Your task to perform on an android device: What's the weather like in London? Image 0: 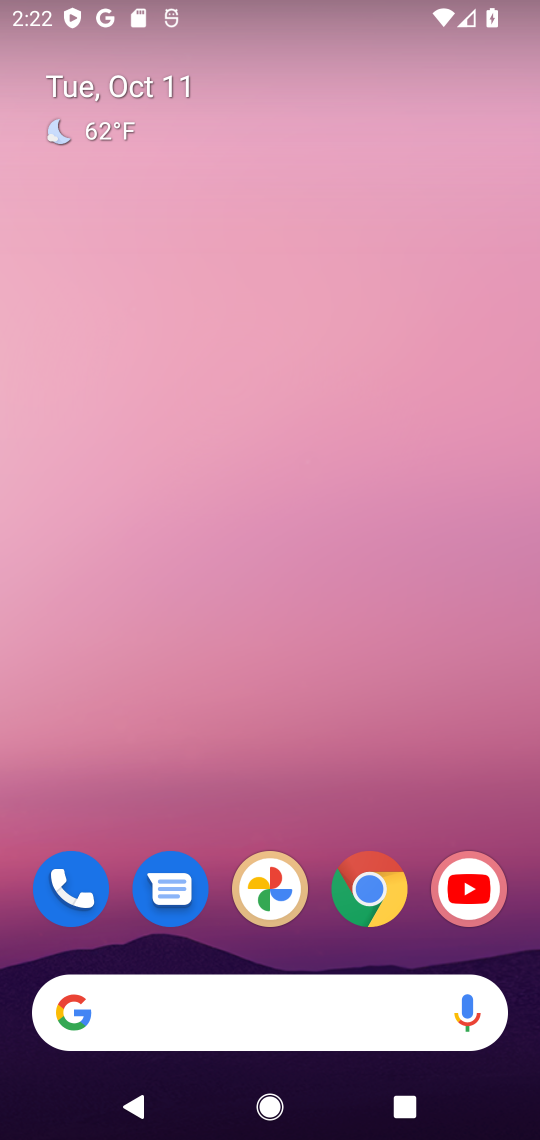
Step 0: drag from (294, 923) to (360, 227)
Your task to perform on an android device: What's the weather like in London? Image 1: 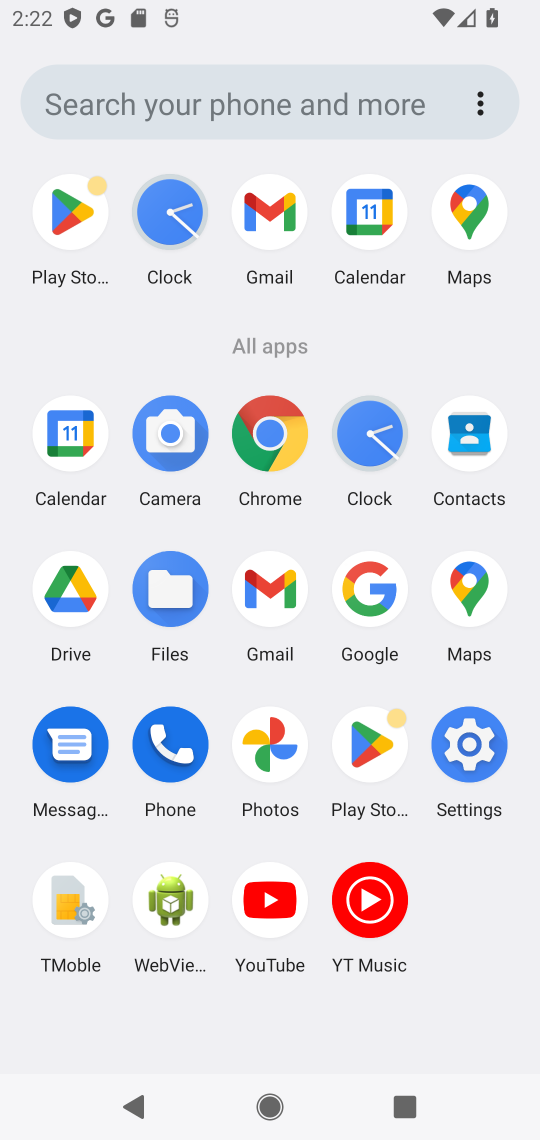
Step 1: click (348, 581)
Your task to perform on an android device: What's the weather like in London? Image 2: 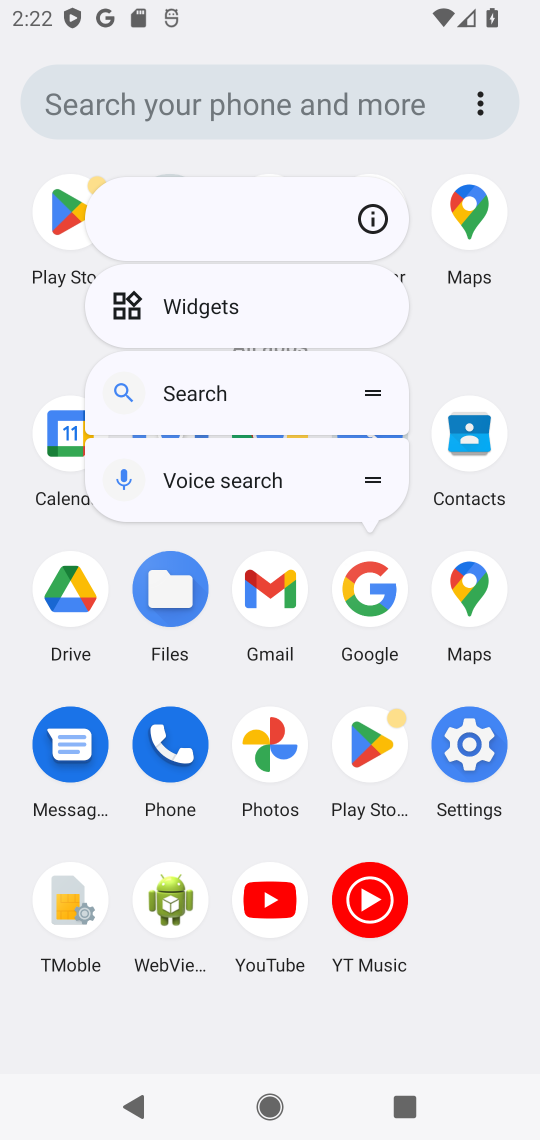
Step 2: click (359, 584)
Your task to perform on an android device: What's the weather like in London? Image 3: 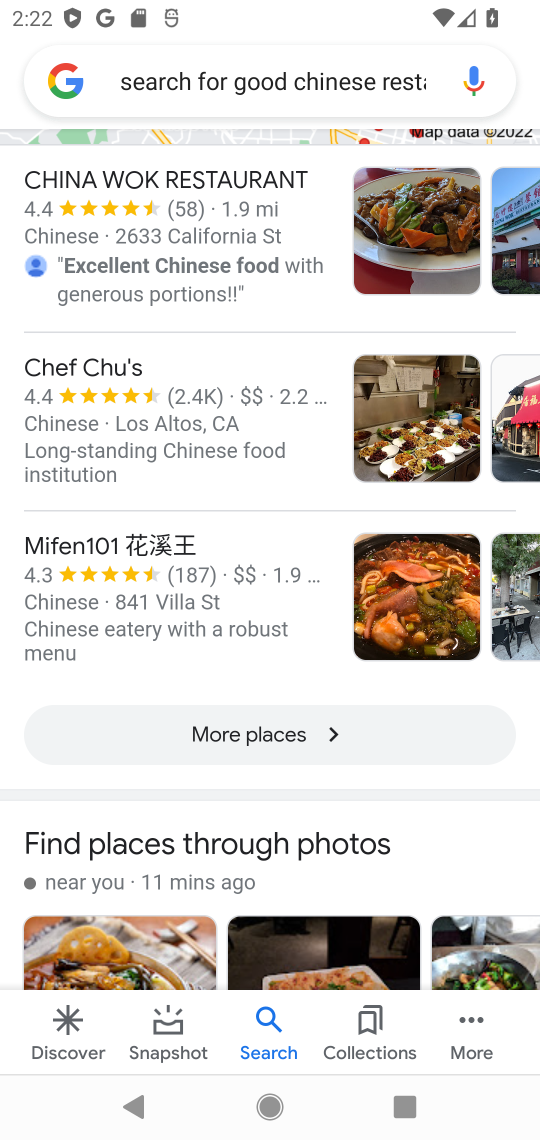
Step 3: click (236, 72)
Your task to perform on an android device: What's the weather like in London? Image 4: 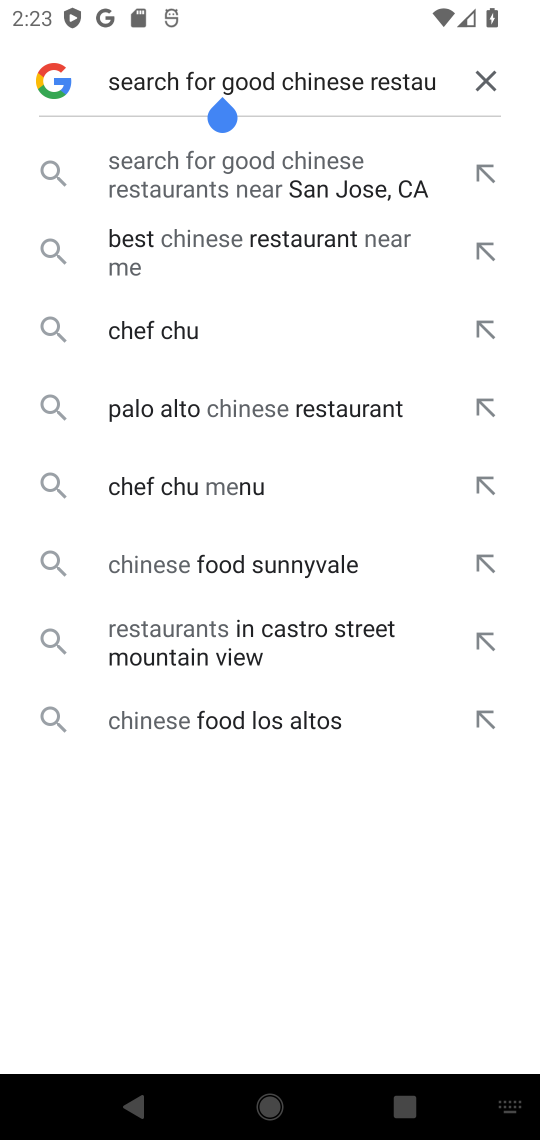
Step 4: click (479, 75)
Your task to perform on an android device: What's the weather like in London? Image 5: 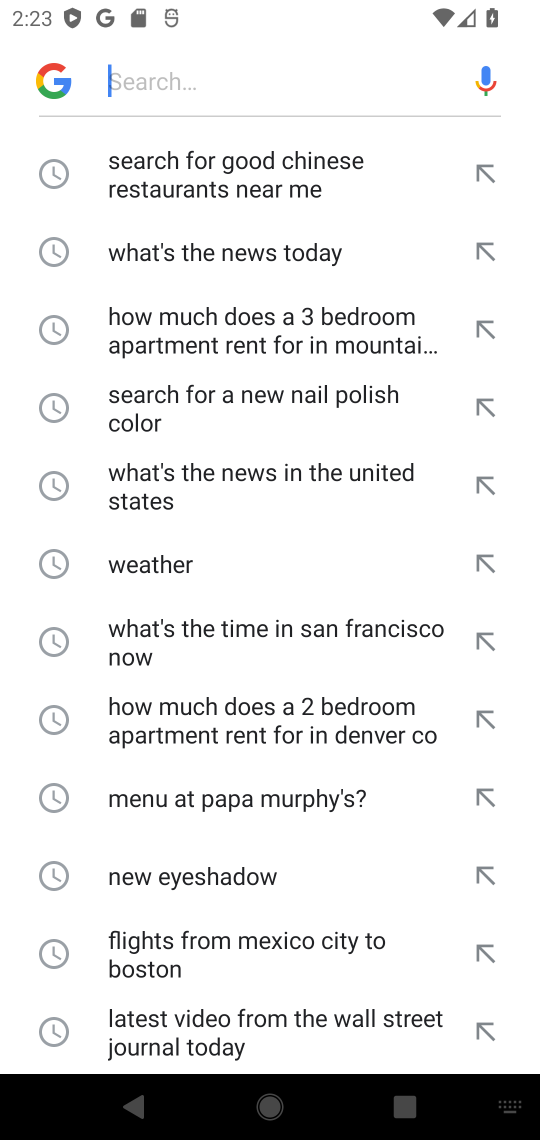
Step 5: click (194, 67)
Your task to perform on an android device: What's the weather like in London? Image 6: 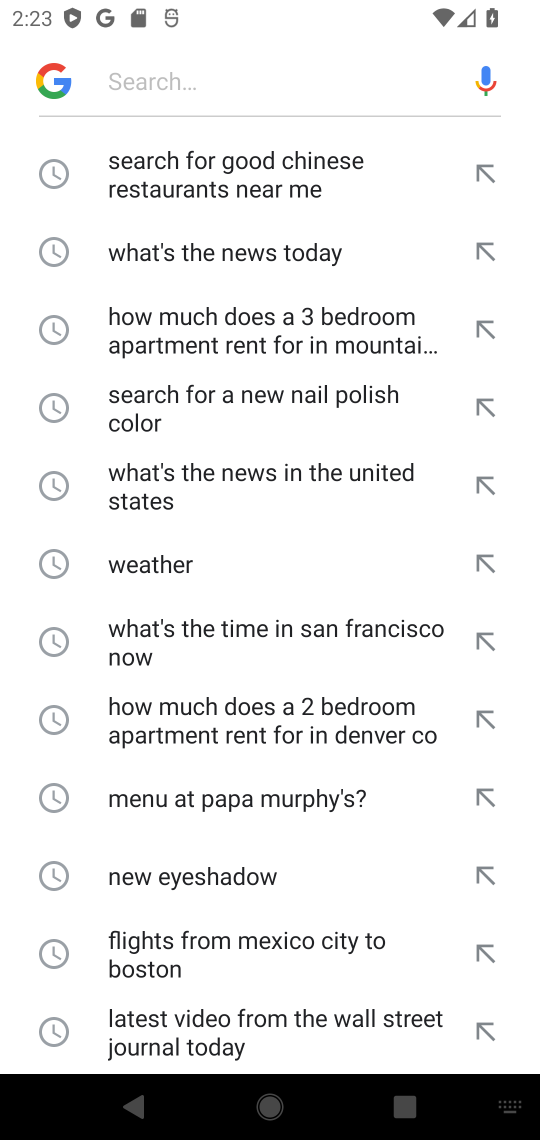
Step 6: type "What's the weather like in London? "
Your task to perform on an android device: What's the weather like in London? Image 7: 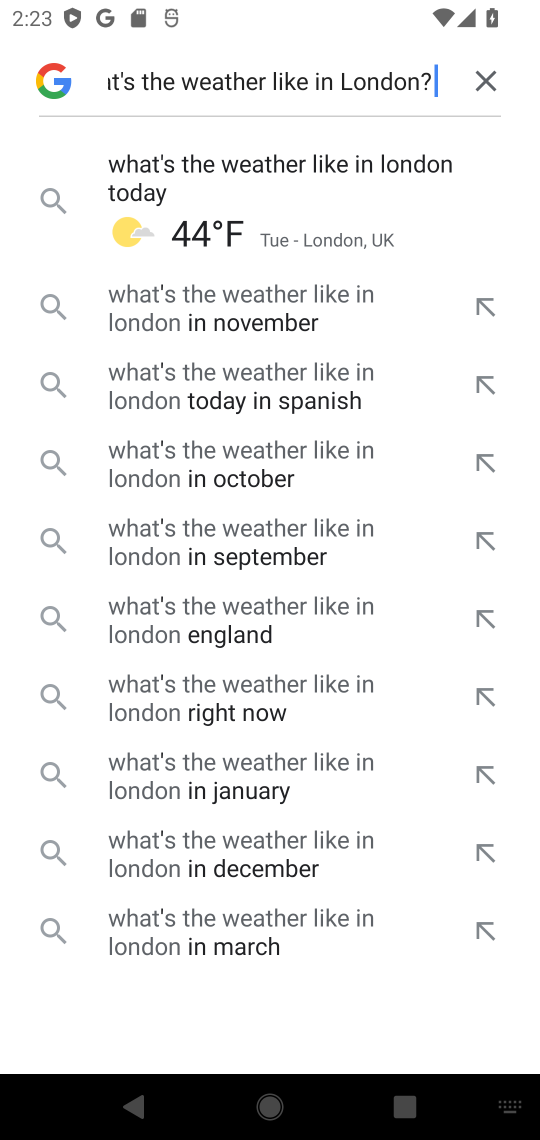
Step 7: click (290, 192)
Your task to perform on an android device: What's the weather like in London? Image 8: 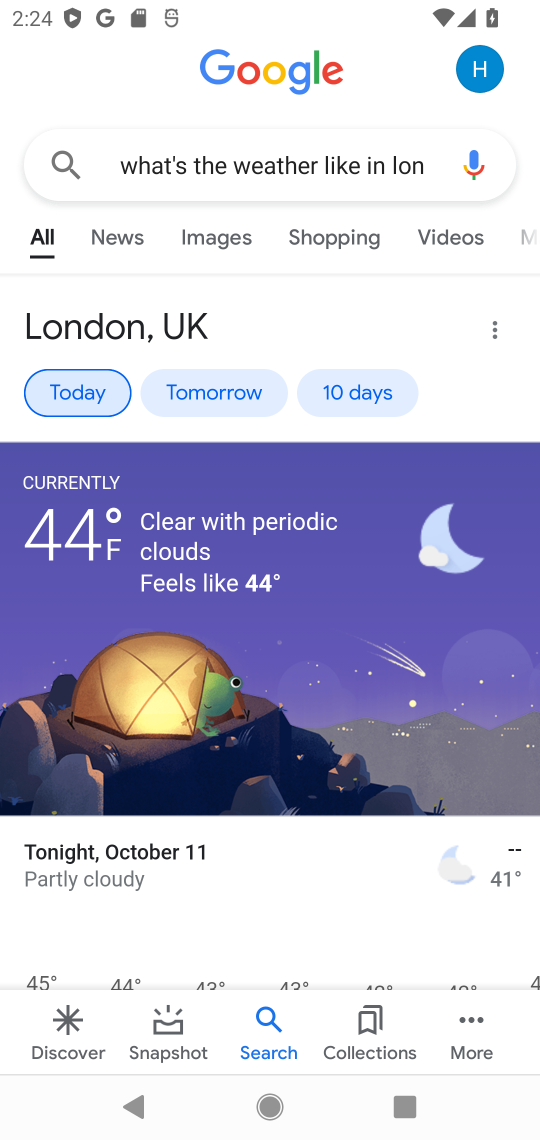
Step 8: task complete